Your task to perform on an android device: Turn on the flashlight Image 0: 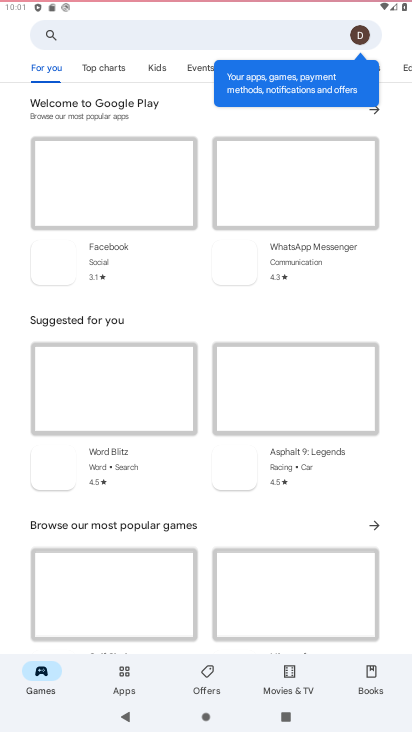
Step 0: press home button
Your task to perform on an android device: Turn on the flashlight Image 1: 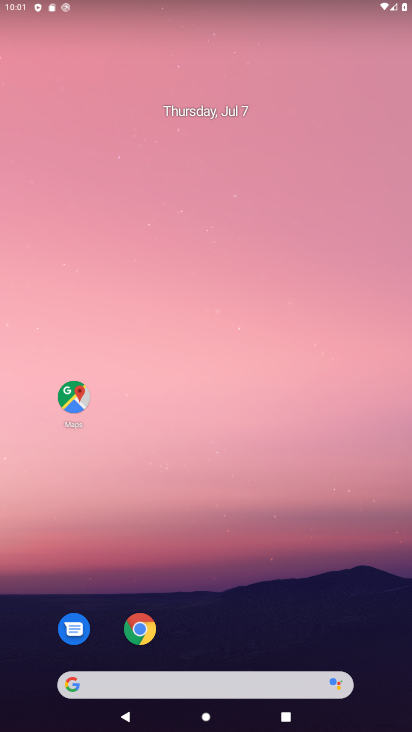
Step 1: task complete